Your task to perform on an android device: Check the weather Image 0: 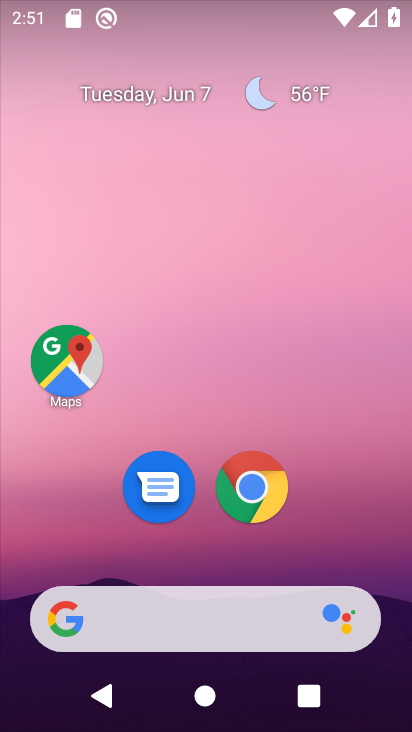
Step 0: click (231, 631)
Your task to perform on an android device: Check the weather Image 1: 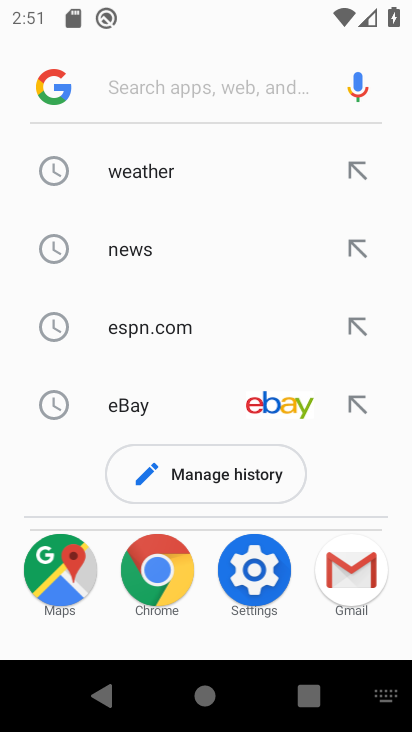
Step 1: click (148, 172)
Your task to perform on an android device: Check the weather Image 2: 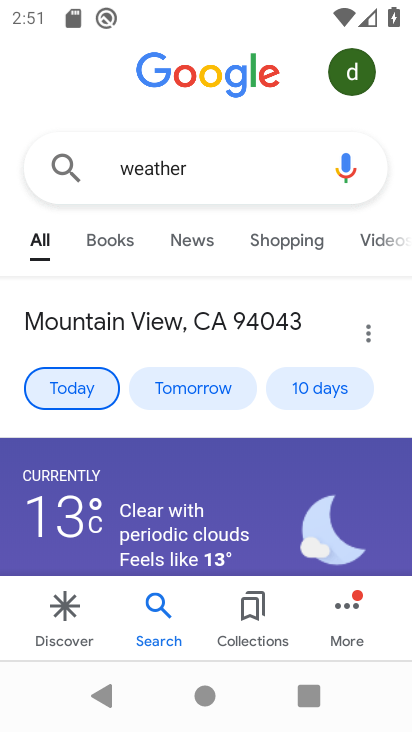
Step 2: task complete